Your task to perform on an android device: turn on location history Image 0: 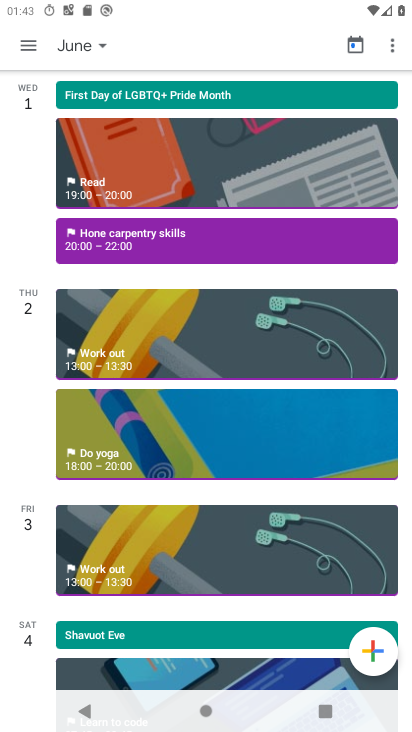
Step 0: press home button
Your task to perform on an android device: turn on location history Image 1: 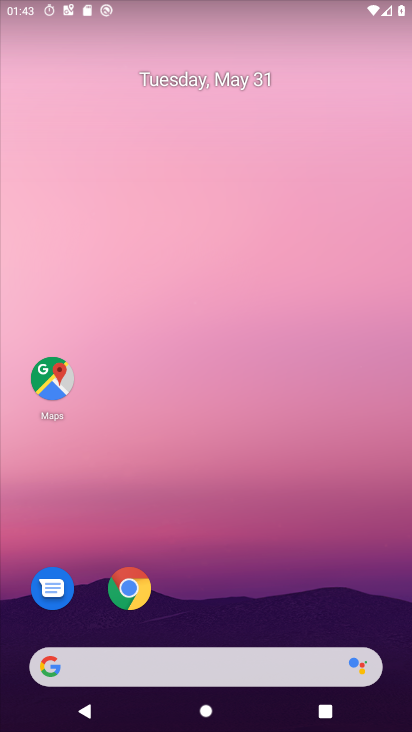
Step 1: drag from (172, 672) to (216, 78)
Your task to perform on an android device: turn on location history Image 2: 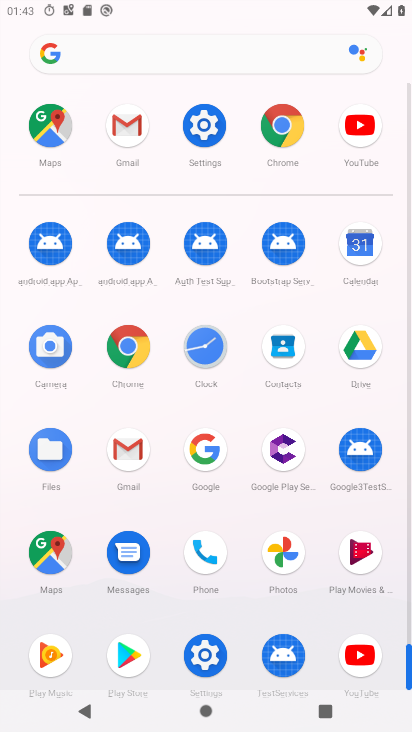
Step 2: click (211, 142)
Your task to perform on an android device: turn on location history Image 3: 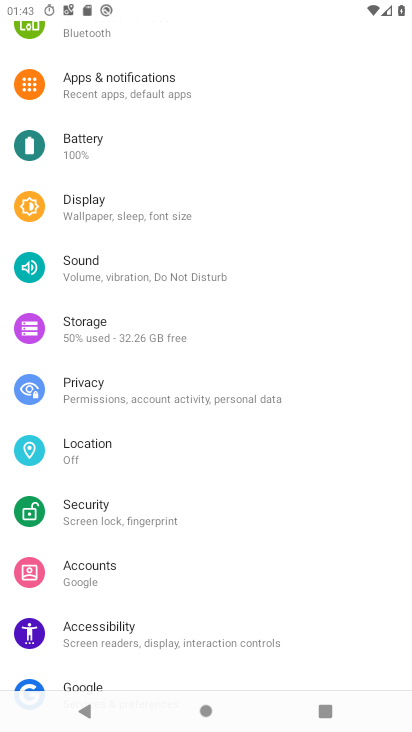
Step 3: drag from (119, 645) to (141, 435)
Your task to perform on an android device: turn on location history Image 4: 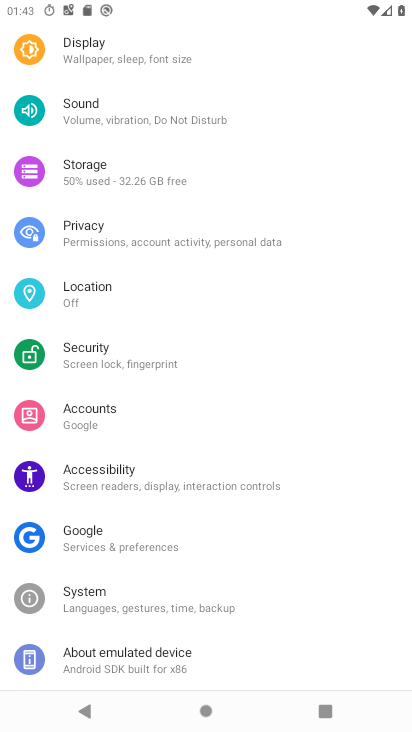
Step 4: click (97, 298)
Your task to perform on an android device: turn on location history Image 5: 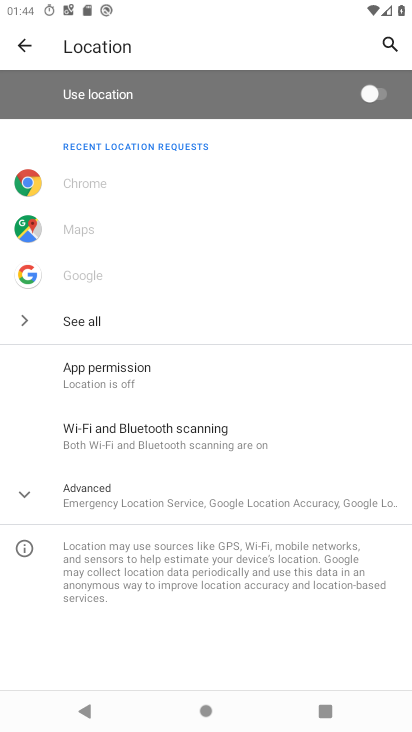
Step 5: click (187, 493)
Your task to perform on an android device: turn on location history Image 6: 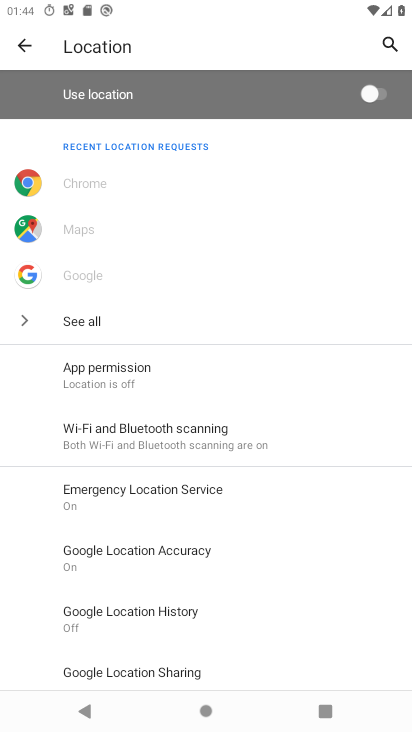
Step 6: click (134, 623)
Your task to perform on an android device: turn on location history Image 7: 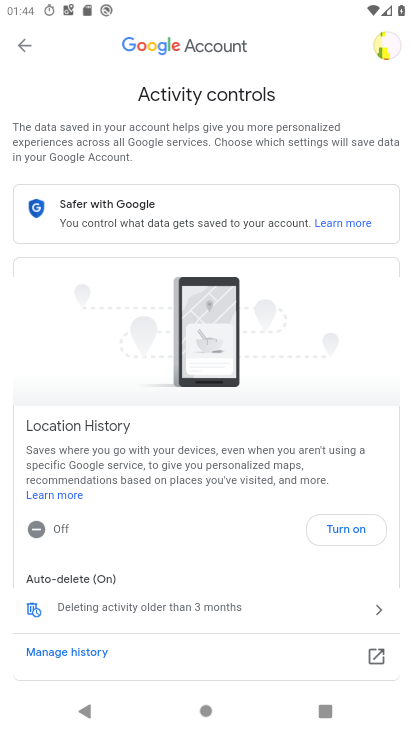
Step 7: click (350, 531)
Your task to perform on an android device: turn on location history Image 8: 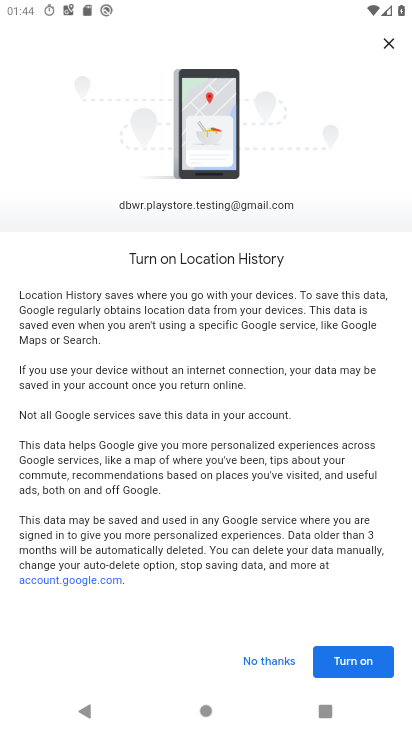
Step 8: click (345, 669)
Your task to perform on an android device: turn on location history Image 9: 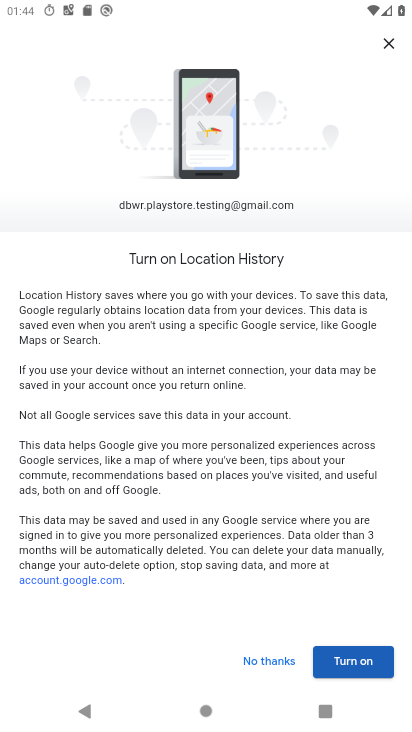
Step 9: click (350, 672)
Your task to perform on an android device: turn on location history Image 10: 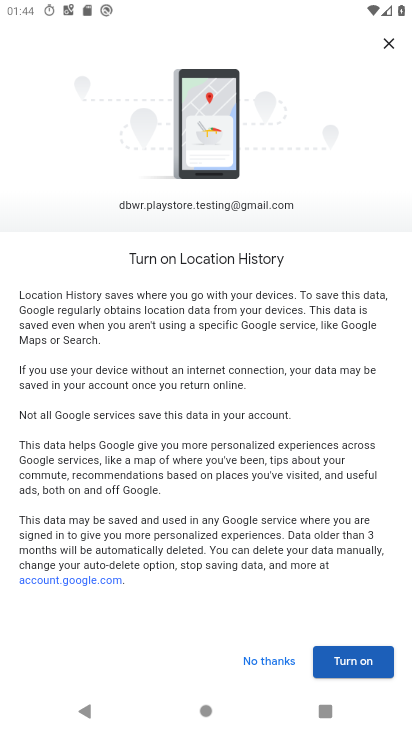
Step 10: click (350, 672)
Your task to perform on an android device: turn on location history Image 11: 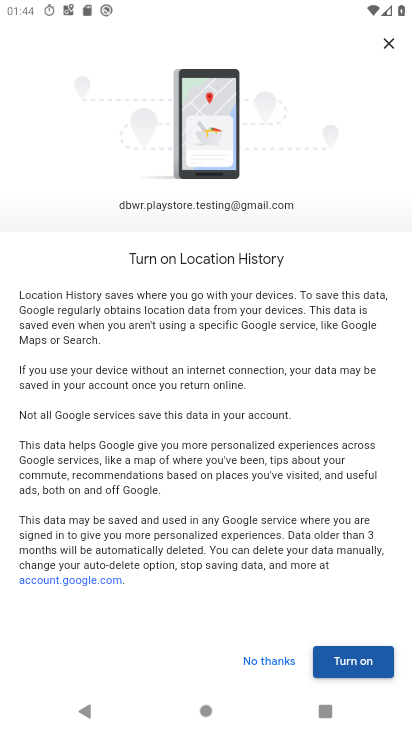
Step 11: click (370, 663)
Your task to perform on an android device: turn on location history Image 12: 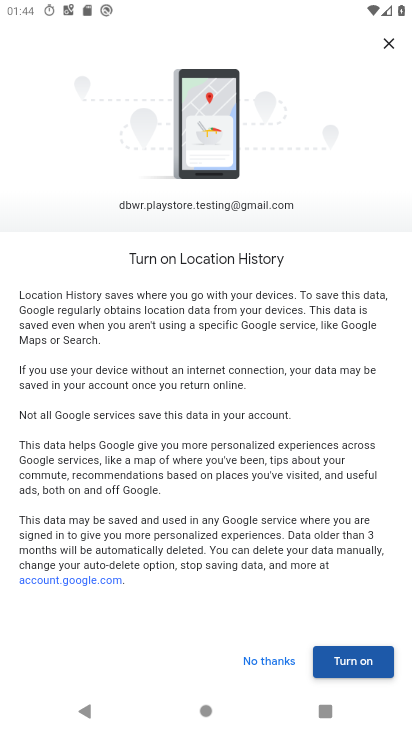
Step 12: click (373, 668)
Your task to perform on an android device: turn on location history Image 13: 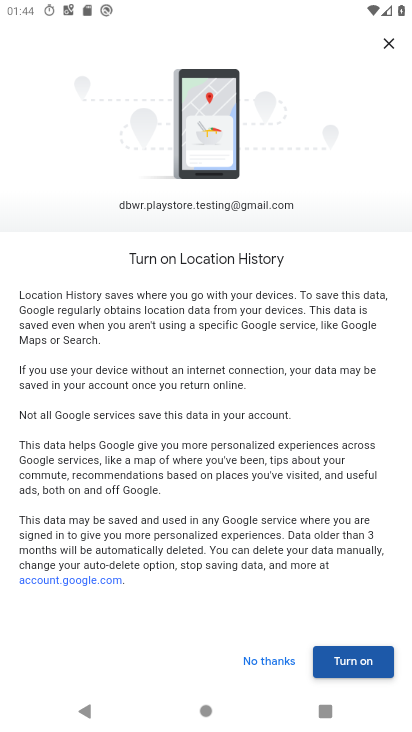
Step 13: click (373, 667)
Your task to perform on an android device: turn on location history Image 14: 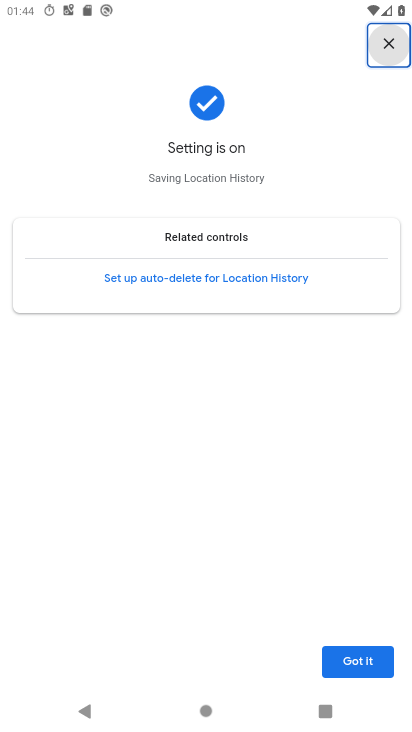
Step 14: task complete